Your task to perform on an android device: turn off wifi Image 0: 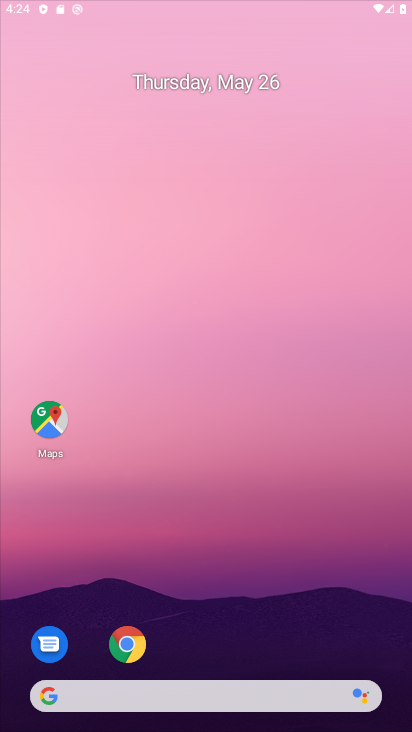
Step 0: drag from (245, 611) to (232, 84)
Your task to perform on an android device: turn off wifi Image 1: 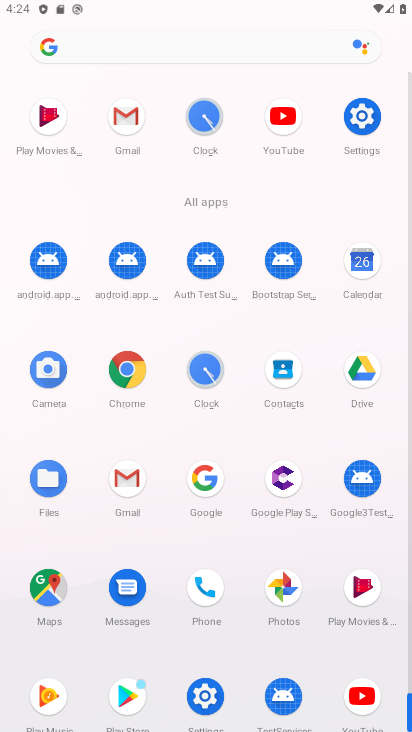
Step 1: click (205, 689)
Your task to perform on an android device: turn off wifi Image 2: 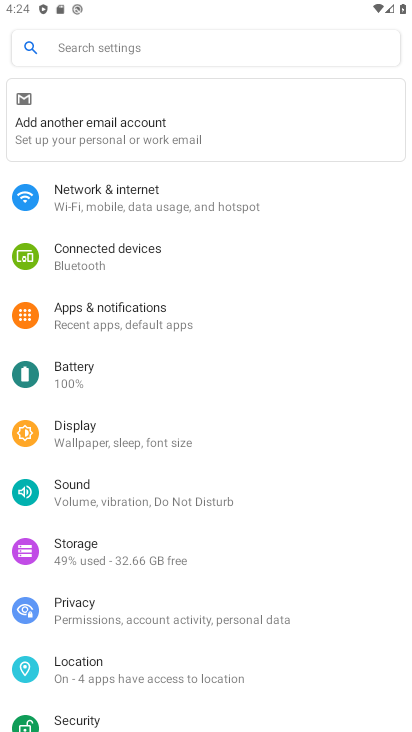
Step 2: click (147, 198)
Your task to perform on an android device: turn off wifi Image 3: 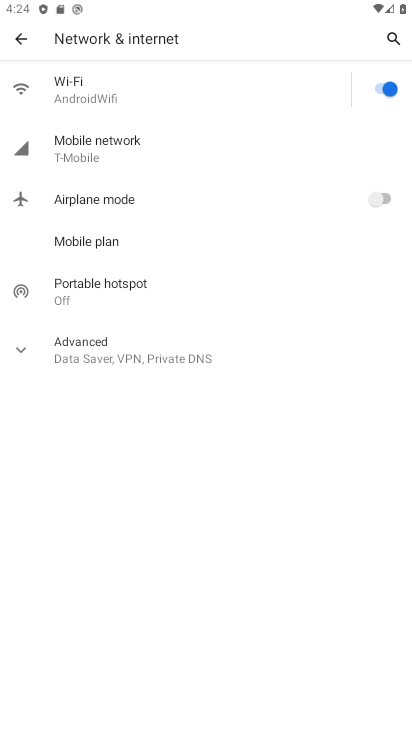
Step 3: click (379, 85)
Your task to perform on an android device: turn off wifi Image 4: 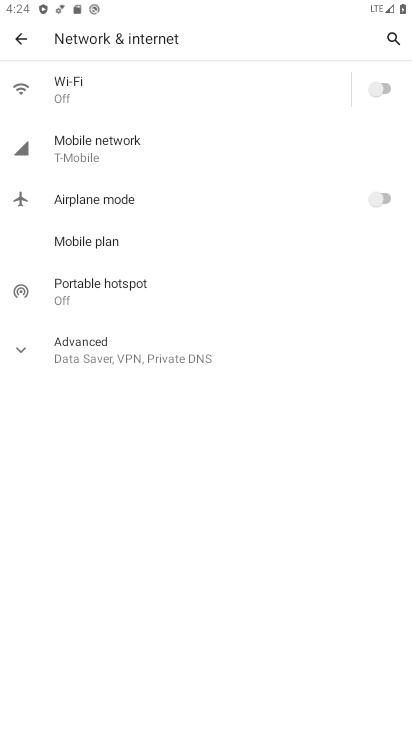
Step 4: task complete